Your task to perform on an android device: change the clock display to analog Image 0: 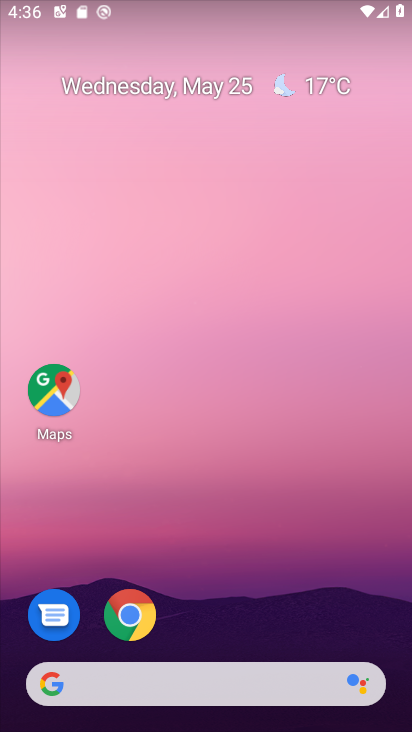
Step 0: click (132, 611)
Your task to perform on an android device: change the clock display to analog Image 1: 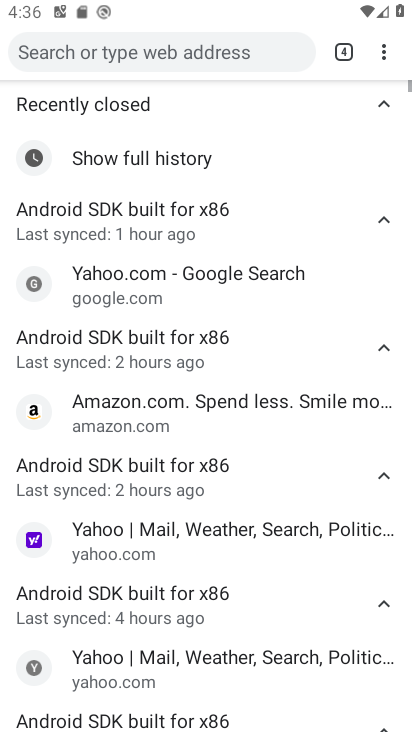
Step 1: click (220, 51)
Your task to perform on an android device: change the clock display to analog Image 2: 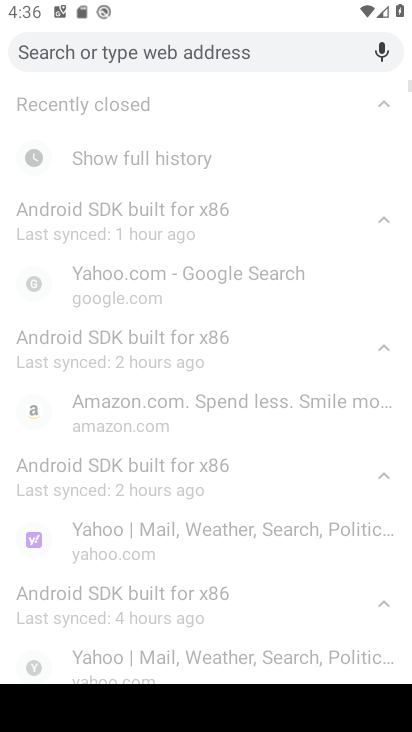
Step 2: press home button
Your task to perform on an android device: change the clock display to analog Image 3: 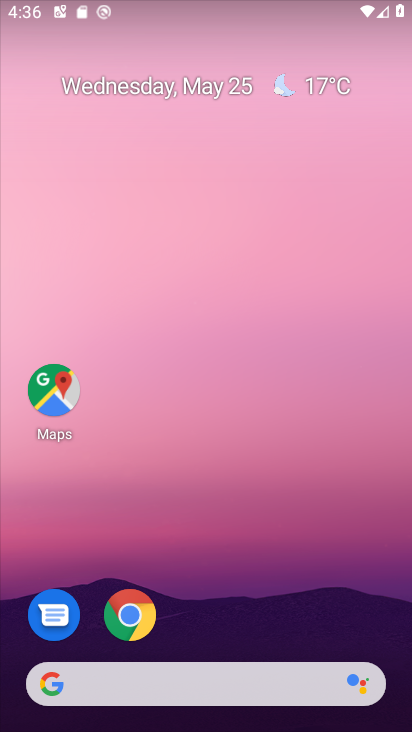
Step 3: drag from (289, 501) to (264, 14)
Your task to perform on an android device: change the clock display to analog Image 4: 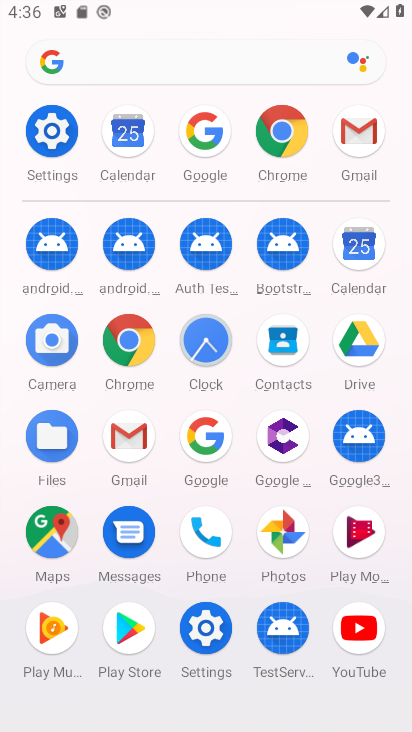
Step 4: click (215, 336)
Your task to perform on an android device: change the clock display to analog Image 5: 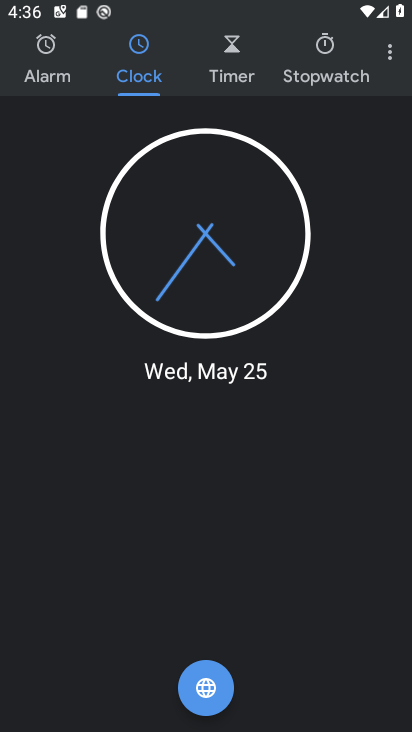
Step 5: click (389, 42)
Your task to perform on an android device: change the clock display to analog Image 6: 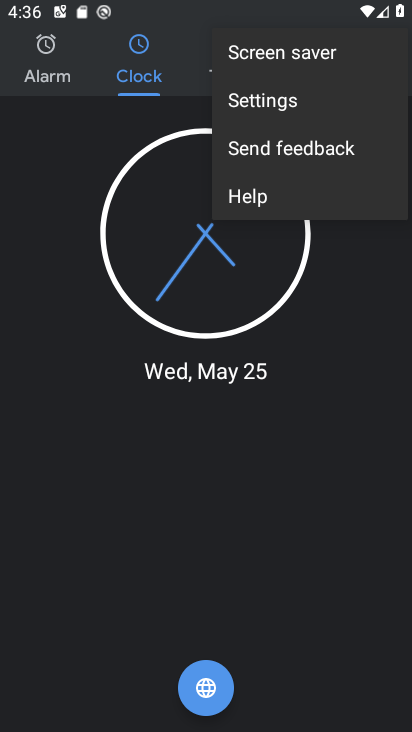
Step 6: click (282, 99)
Your task to perform on an android device: change the clock display to analog Image 7: 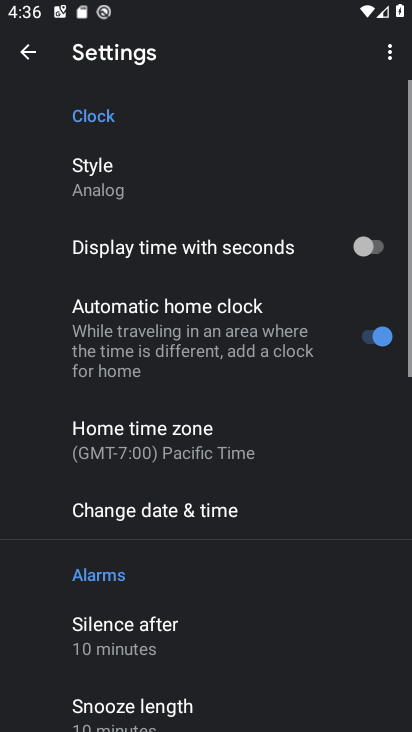
Step 7: click (145, 184)
Your task to perform on an android device: change the clock display to analog Image 8: 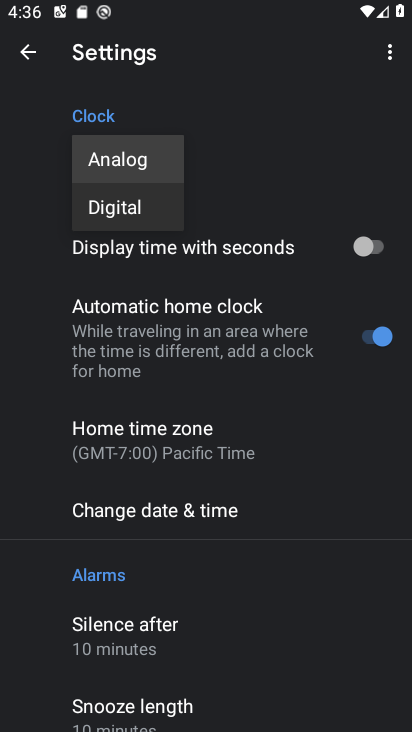
Step 8: task complete